Your task to perform on an android device: Open Youtube and go to the subscriptions tab Image 0: 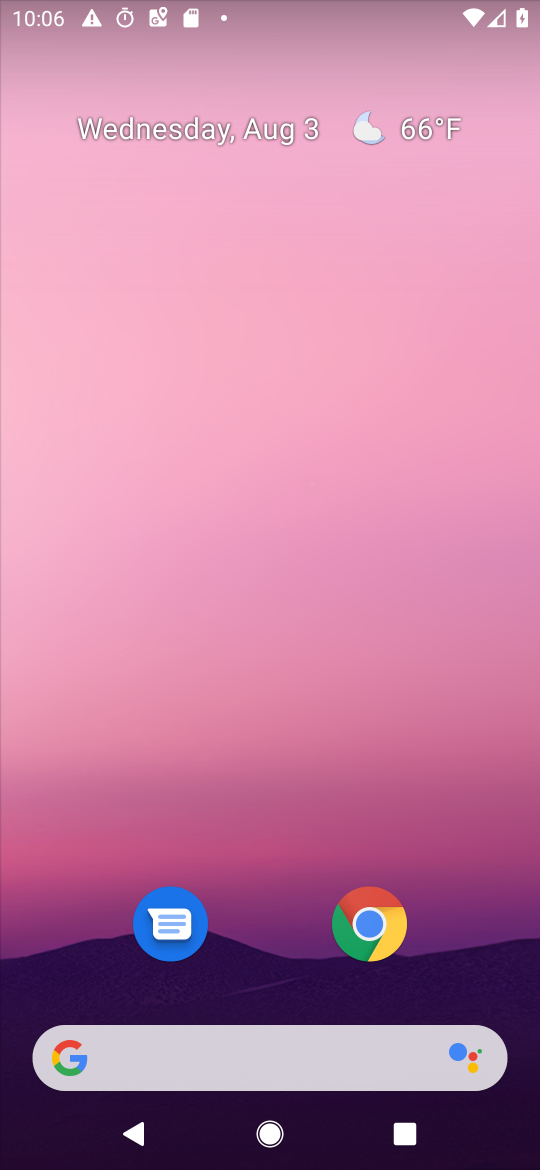
Step 0: press home button
Your task to perform on an android device: Open Youtube and go to the subscriptions tab Image 1: 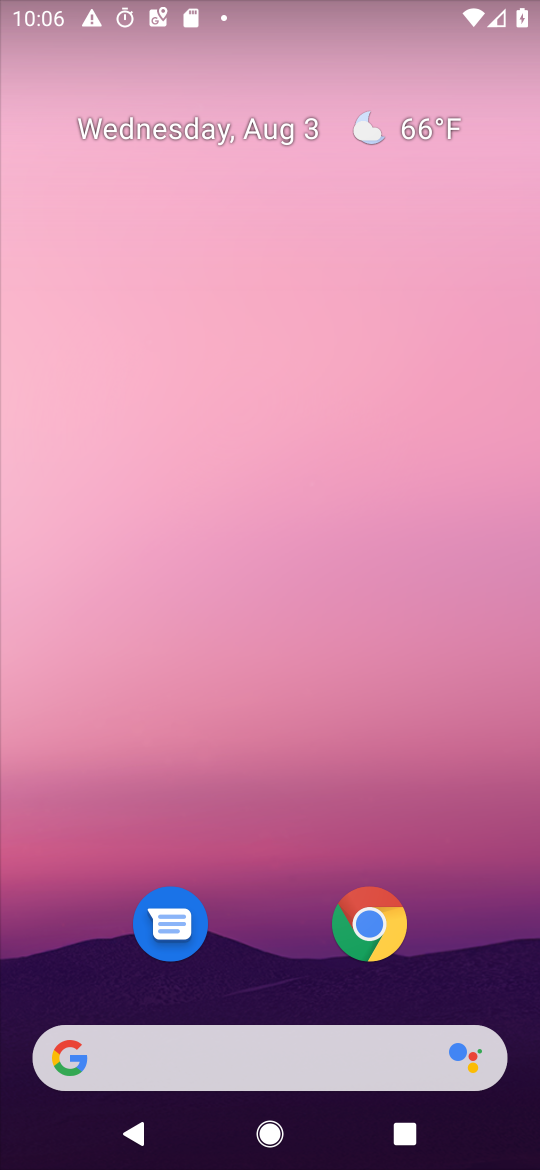
Step 1: drag from (283, 982) to (332, 150)
Your task to perform on an android device: Open Youtube and go to the subscriptions tab Image 2: 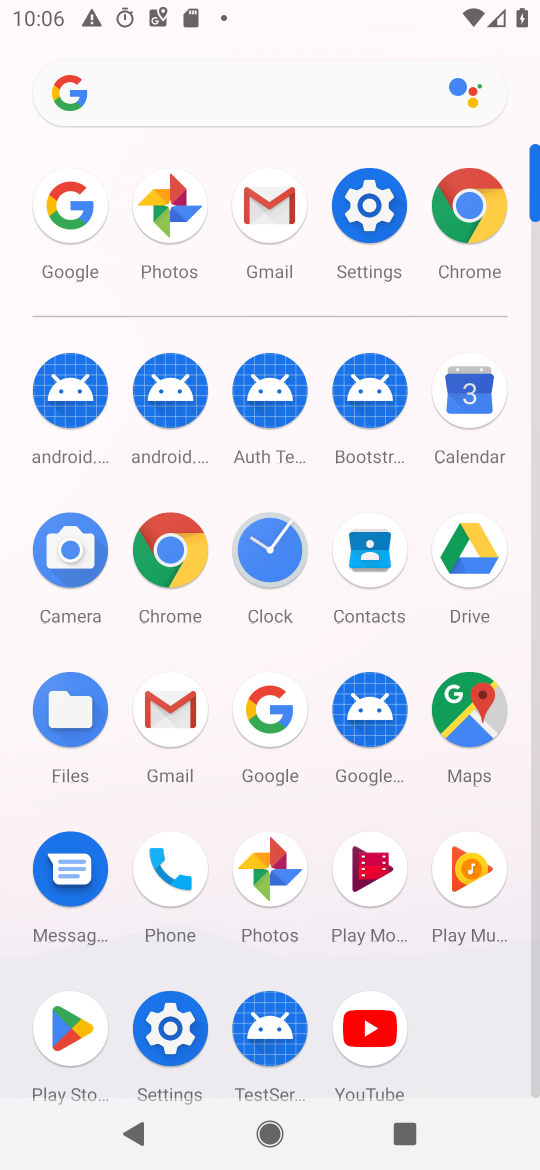
Step 2: click (364, 1020)
Your task to perform on an android device: Open Youtube and go to the subscriptions tab Image 3: 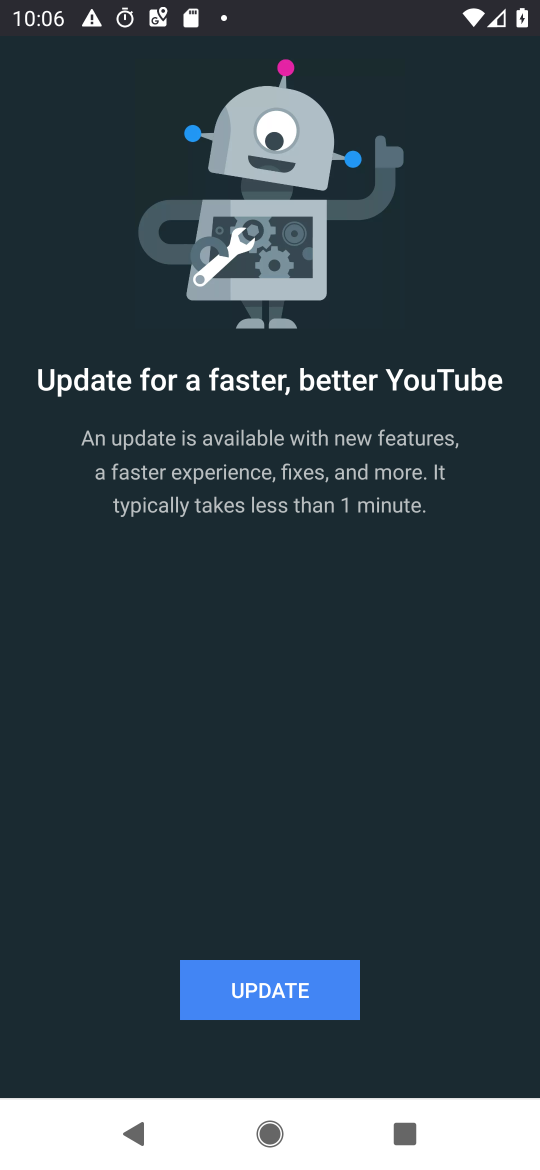
Step 3: click (271, 981)
Your task to perform on an android device: Open Youtube and go to the subscriptions tab Image 4: 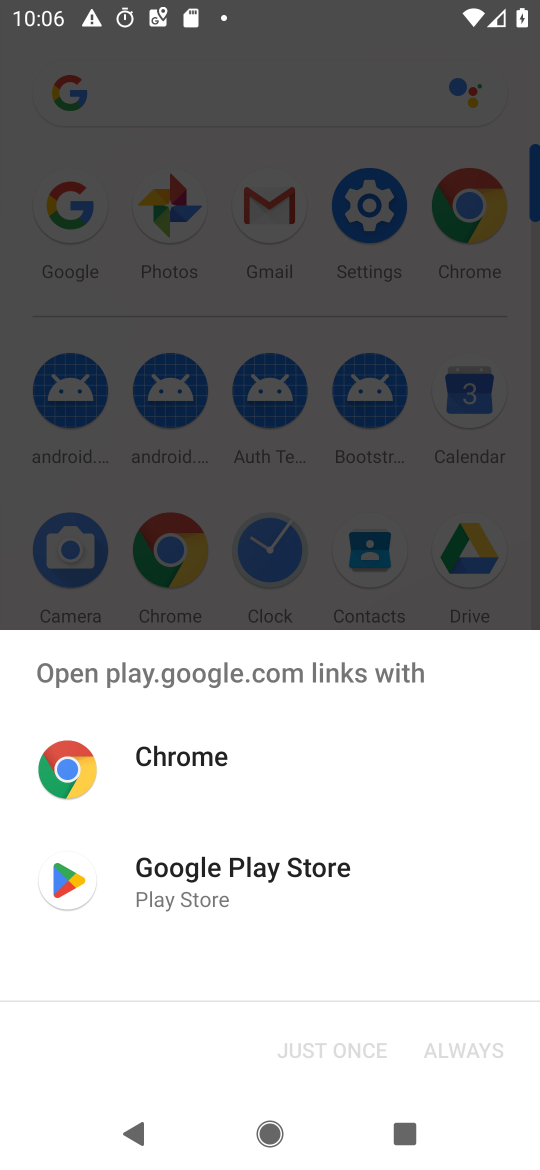
Step 4: click (153, 879)
Your task to perform on an android device: Open Youtube and go to the subscriptions tab Image 5: 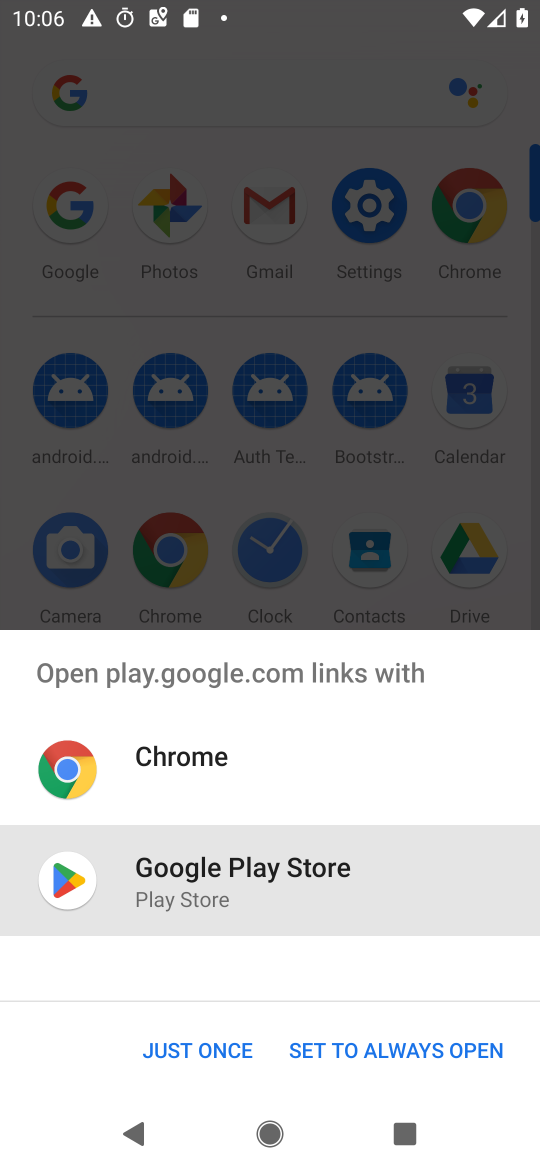
Step 5: click (198, 1041)
Your task to perform on an android device: Open Youtube and go to the subscriptions tab Image 6: 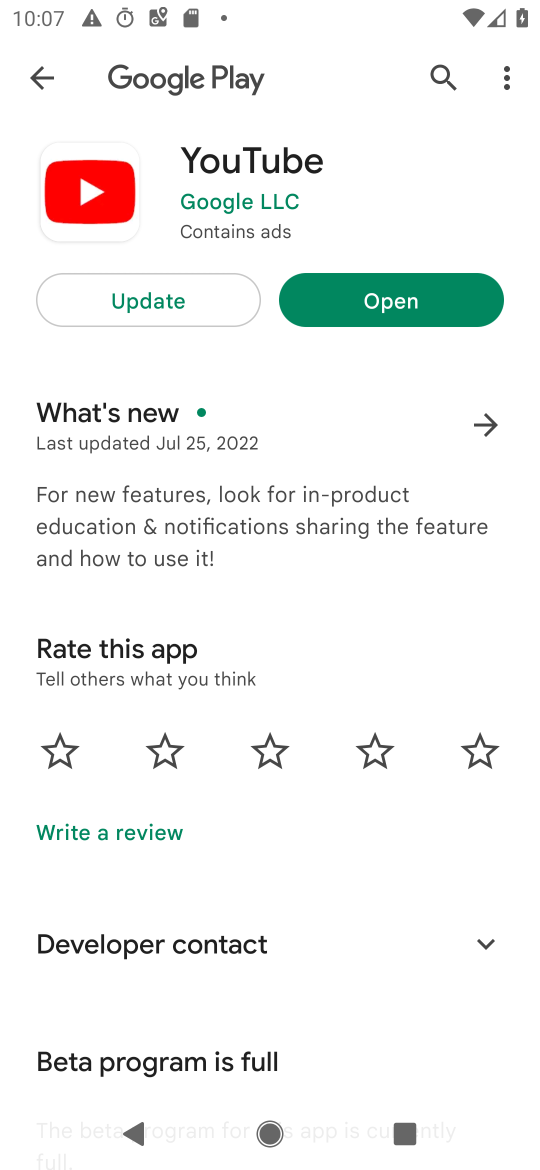
Step 6: click (142, 298)
Your task to perform on an android device: Open Youtube and go to the subscriptions tab Image 7: 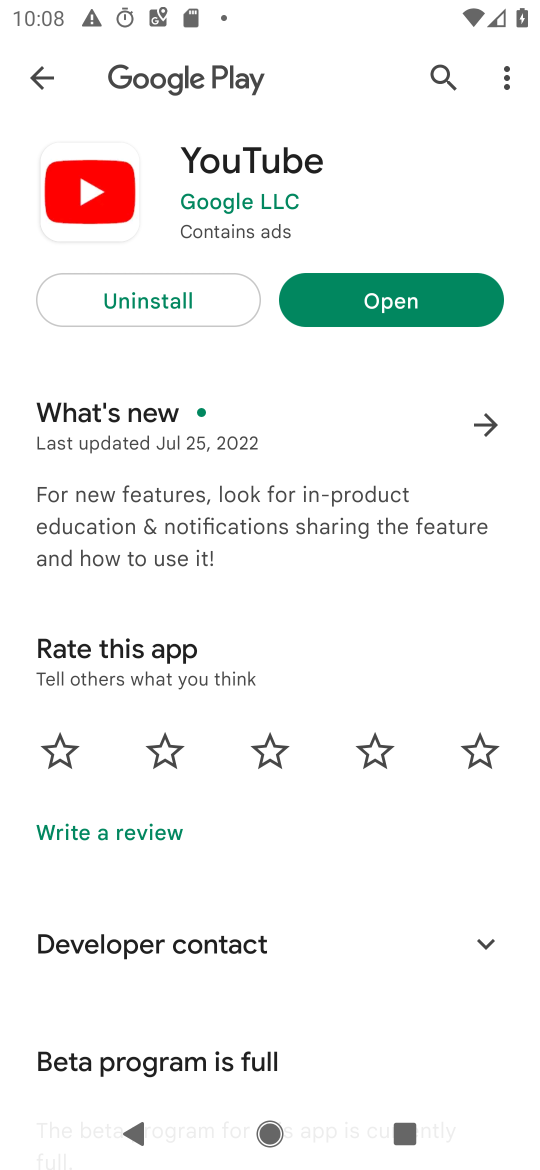
Step 7: click (394, 304)
Your task to perform on an android device: Open Youtube and go to the subscriptions tab Image 8: 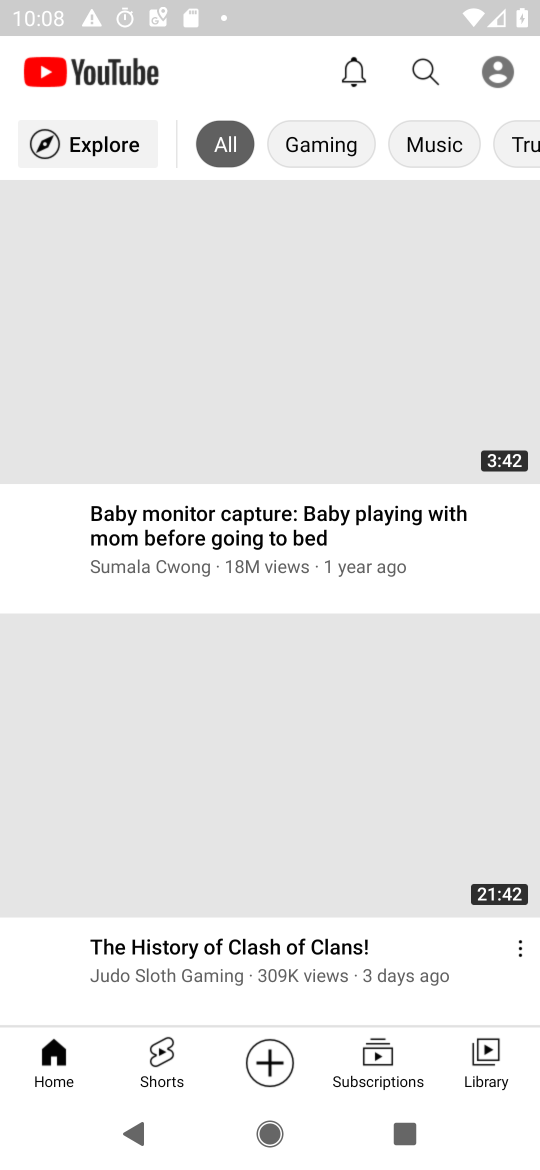
Step 8: click (326, 1048)
Your task to perform on an android device: Open Youtube and go to the subscriptions tab Image 9: 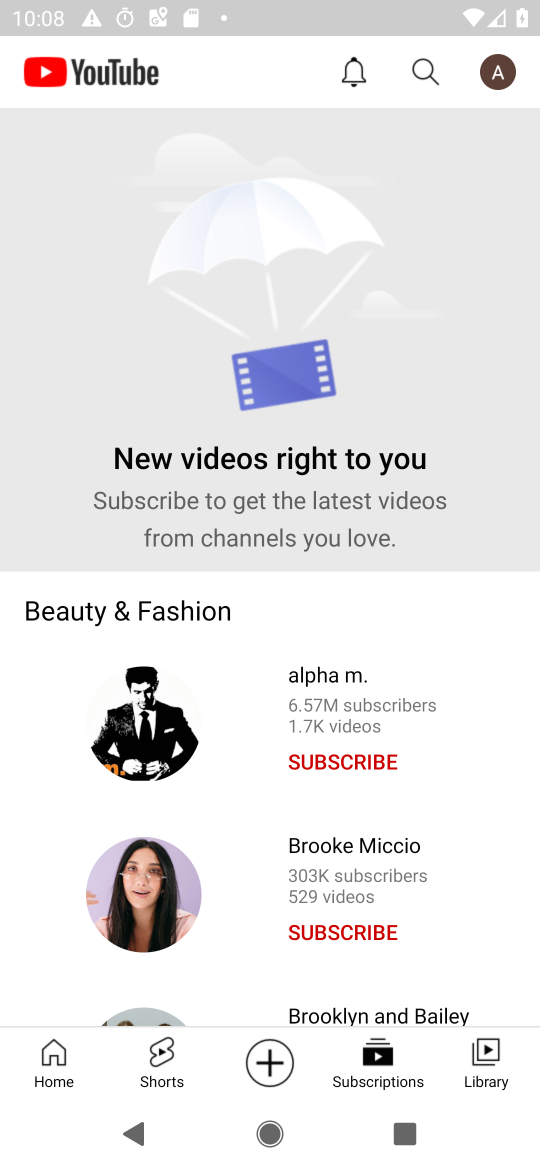
Step 9: task complete